Your task to perform on an android device: Search for "dell xps" on walmart, select the first entry, and add it to the cart. Image 0: 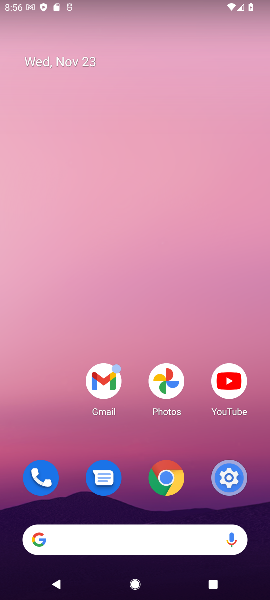
Step 0: click (109, 529)
Your task to perform on an android device: Search for "dell xps" on walmart, select the first entry, and add it to the cart. Image 1: 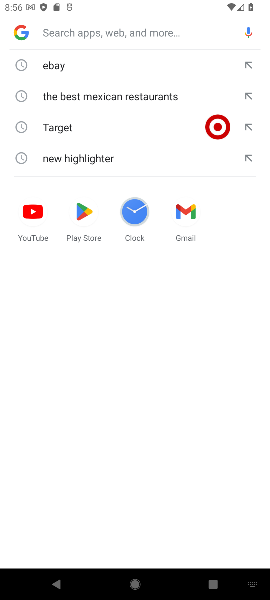
Step 1: type "walmart"
Your task to perform on an android device: Search for "dell xps" on walmart, select the first entry, and add it to the cart. Image 2: 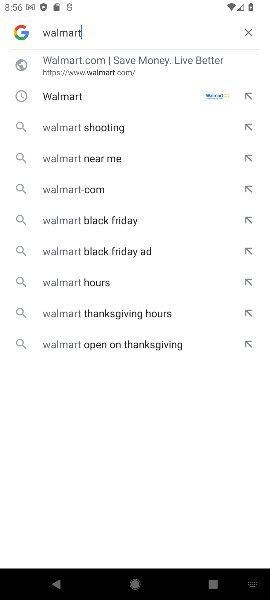
Step 2: click (95, 80)
Your task to perform on an android device: Search for "dell xps" on walmart, select the first entry, and add it to the cart. Image 3: 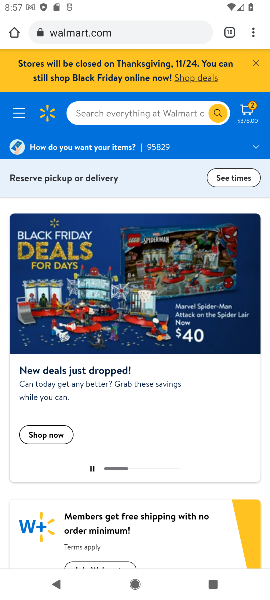
Step 3: click (111, 120)
Your task to perform on an android device: Search for "dell xps" on walmart, select the first entry, and add it to the cart. Image 4: 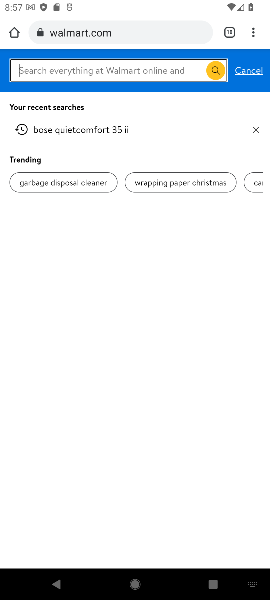
Step 4: type "dell xps"
Your task to perform on an android device: Search for "dell xps" on walmart, select the first entry, and add it to the cart. Image 5: 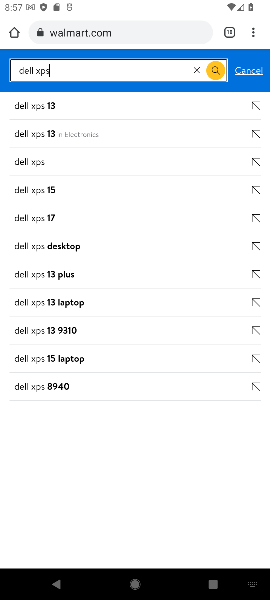
Step 5: click (56, 113)
Your task to perform on an android device: Search for "dell xps" on walmart, select the first entry, and add it to the cart. Image 6: 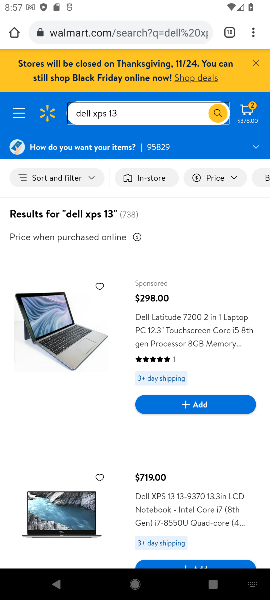
Step 6: click (164, 407)
Your task to perform on an android device: Search for "dell xps" on walmart, select the first entry, and add it to the cart. Image 7: 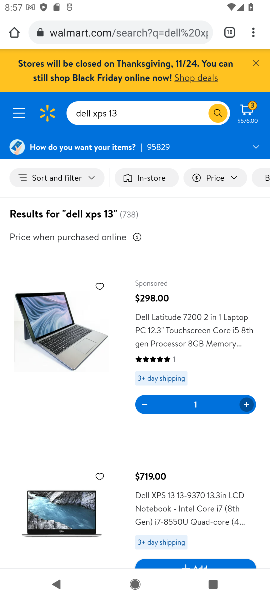
Step 7: task complete